Your task to perform on an android device: Do I have any events tomorrow? Image 0: 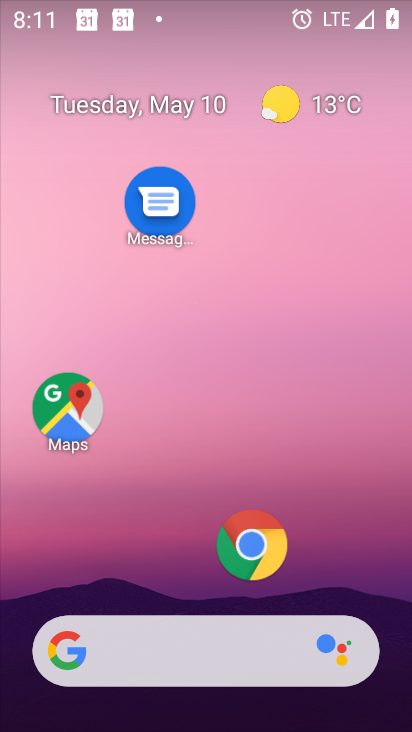
Step 0: drag from (185, 569) to (148, 183)
Your task to perform on an android device: Do I have any events tomorrow? Image 1: 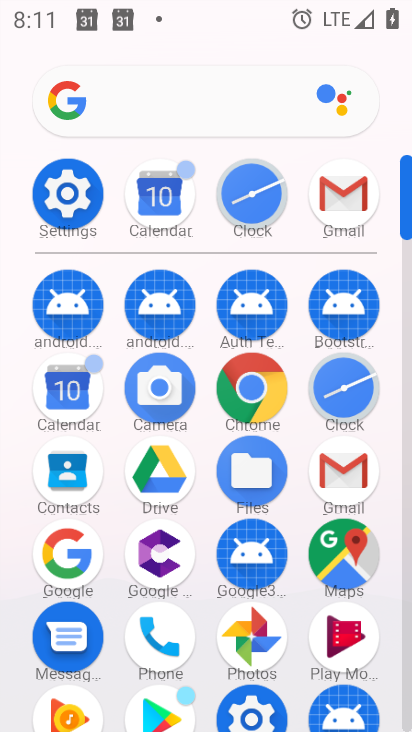
Step 1: click (60, 385)
Your task to perform on an android device: Do I have any events tomorrow? Image 2: 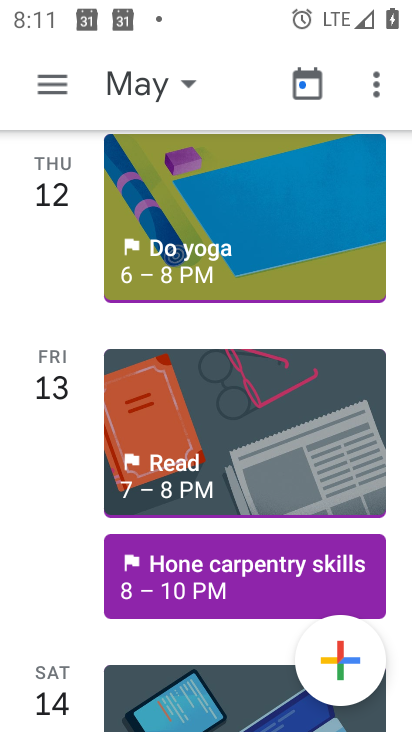
Step 2: drag from (61, 220) to (9, 716)
Your task to perform on an android device: Do I have any events tomorrow? Image 3: 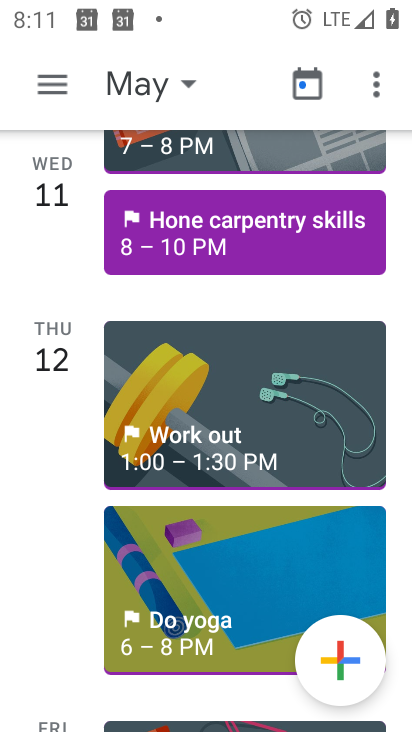
Step 3: drag from (53, 287) to (54, 523)
Your task to perform on an android device: Do I have any events tomorrow? Image 4: 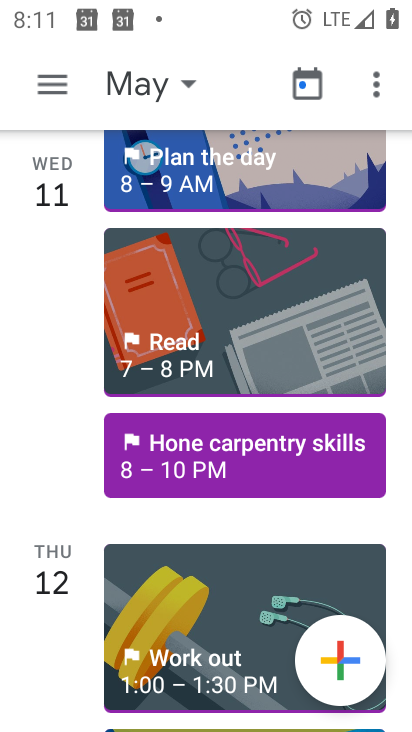
Step 4: click (50, 241)
Your task to perform on an android device: Do I have any events tomorrow? Image 5: 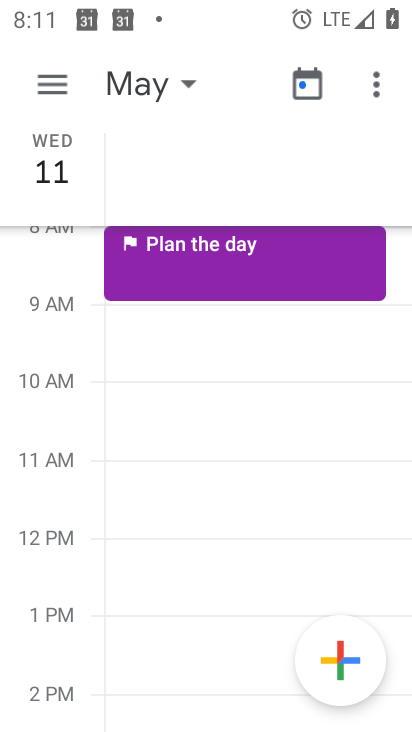
Step 5: drag from (64, 461) to (71, 147)
Your task to perform on an android device: Do I have any events tomorrow? Image 6: 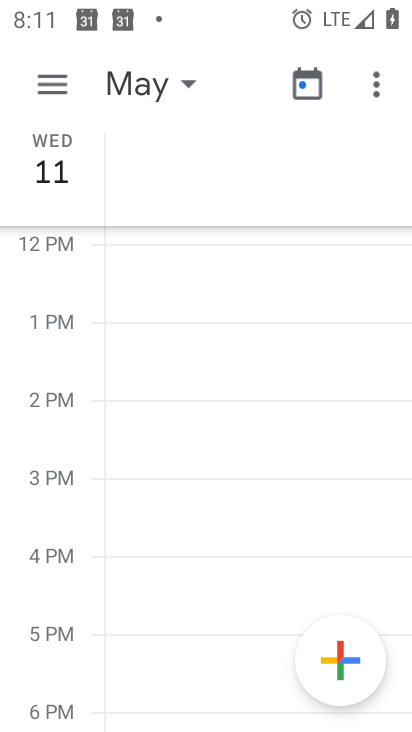
Step 6: click (48, 86)
Your task to perform on an android device: Do I have any events tomorrow? Image 7: 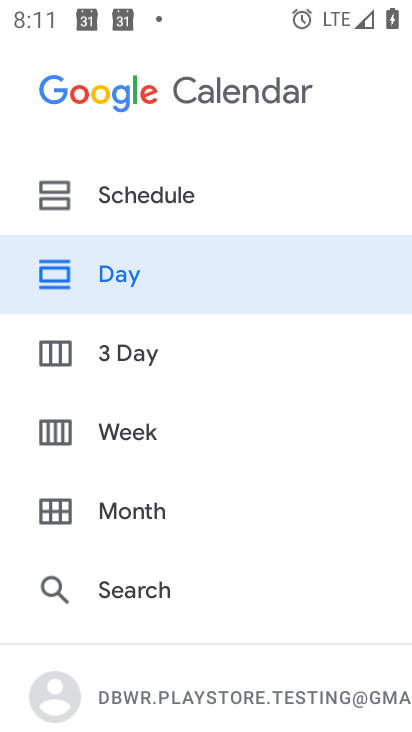
Step 7: drag from (111, 639) to (106, 99)
Your task to perform on an android device: Do I have any events tomorrow? Image 8: 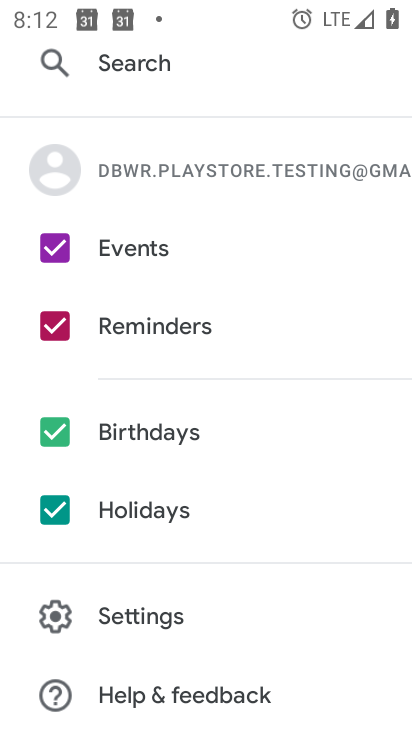
Step 8: click (49, 502)
Your task to perform on an android device: Do I have any events tomorrow? Image 9: 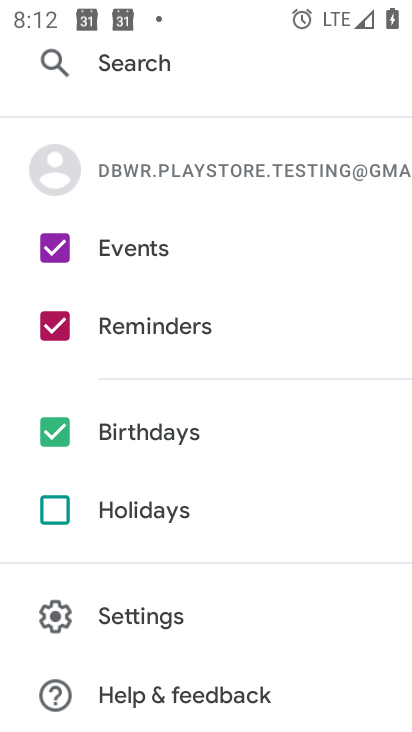
Step 9: click (46, 424)
Your task to perform on an android device: Do I have any events tomorrow? Image 10: 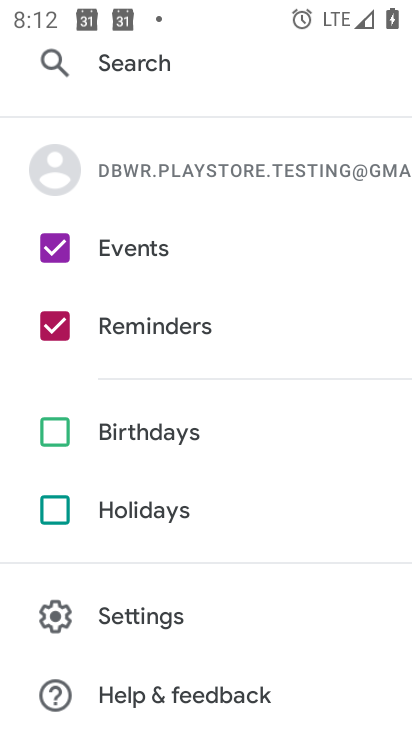
Step 10: click (58, 312)
Your task to perform on an android device: Do I have any events tomorrow? Image 11: 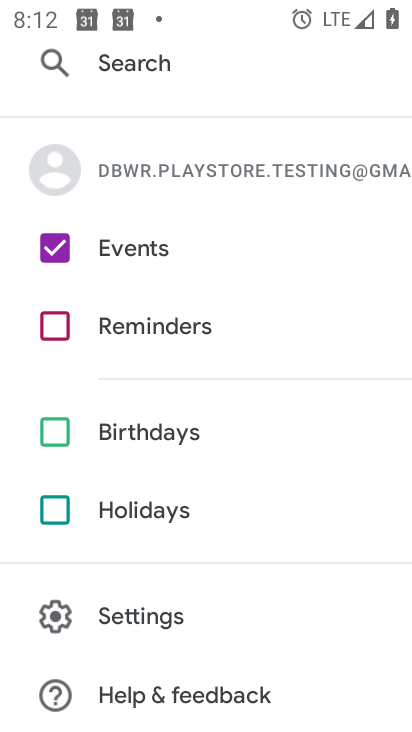
Step 11: drag from (166, 185) to (151, 723)
Your task to perform on an android device: Do I have any events tomorrow? Image 12: 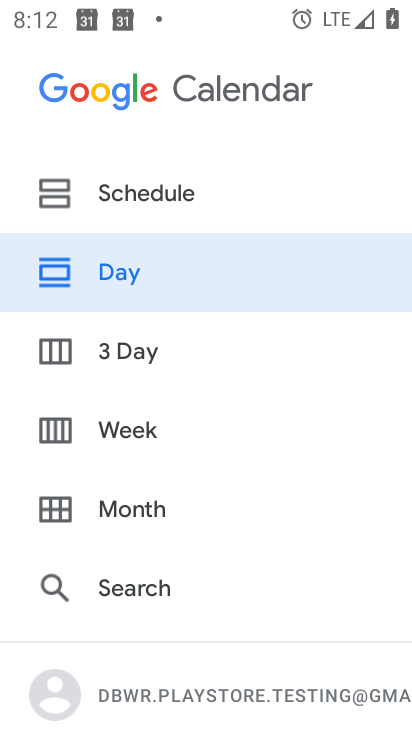
Step 12: click (102, 191)
Your task to perform on an android device: Do I have any events tomorrow? Image 13: 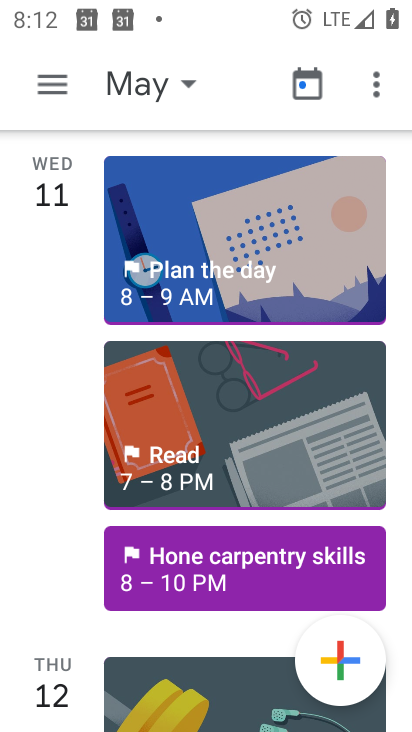
Step 13: click (80, 211)
Your task to perform on an android device: Do I have any events tomorrow? Image 14: 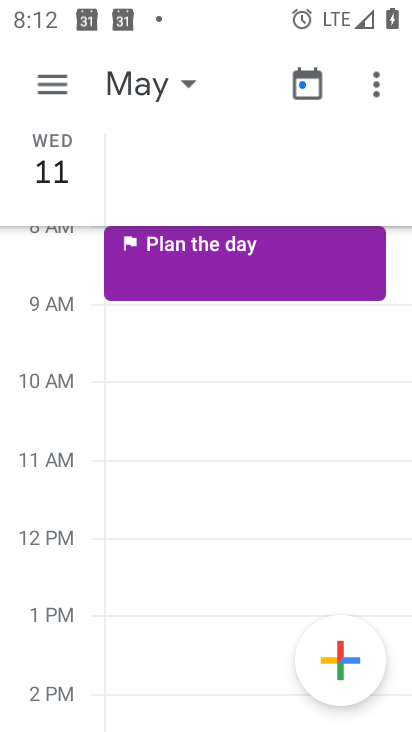
Step 14: task complete